Your task to perform on an android device: change the clock display to digital Image 0: 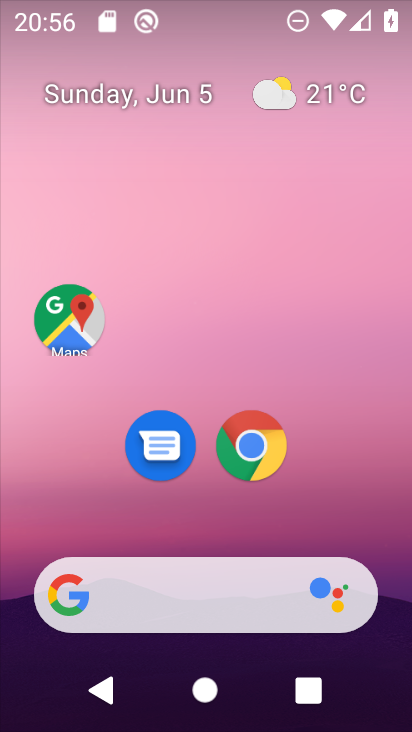
Step 0: drag from (313, 489) to (309, 85)
Your task to perform on an android device: change the clock display to digital Image 1: 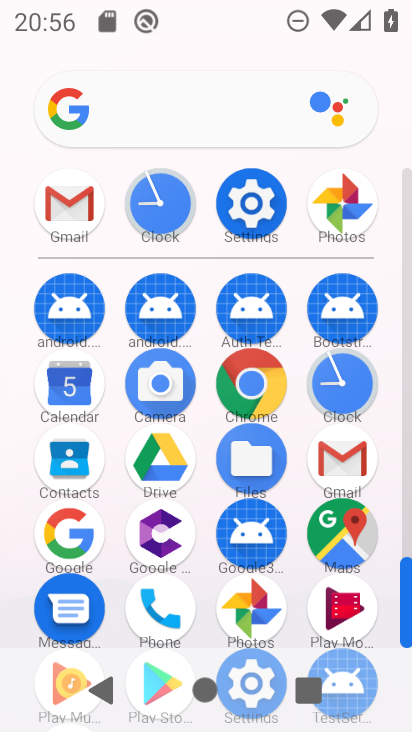
Step 1: click (172, 185)
Your task to perform on an android device: change the clock display to digital Image 2: 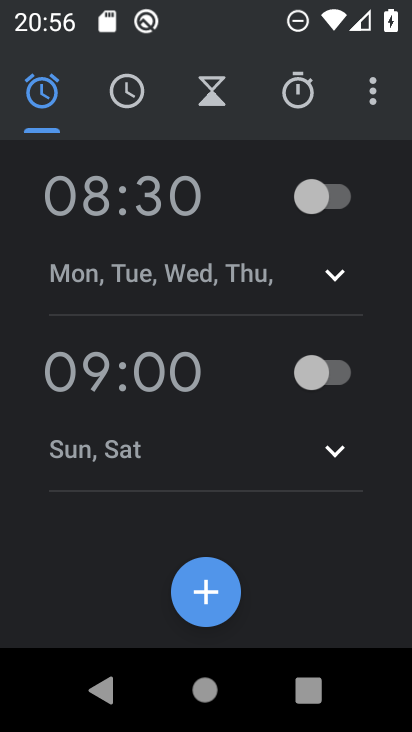
Step 2: click (377, 103)
Your task to perform on an android device: change the clock display to digital Image 3: 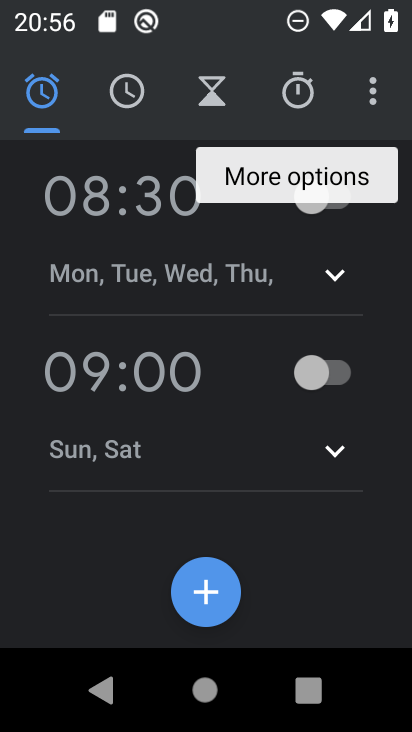
Step 3: click (375, 106)
Your task to perform on an android device: change the clock display to digital Image 4: 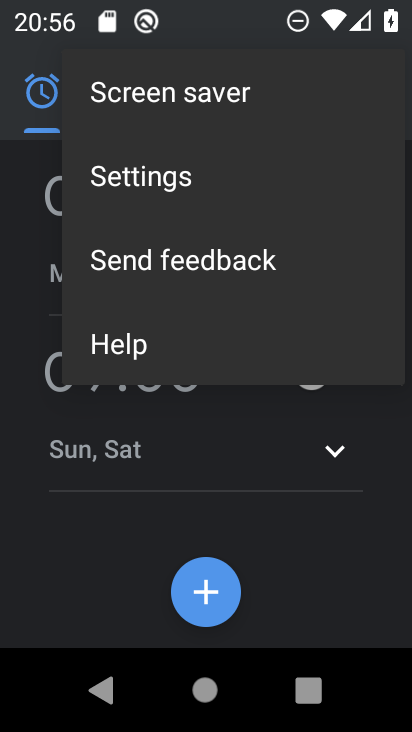
Step 4: click (142, 180)
Your task to perform on an android device: change the clock display to digital Image 5: 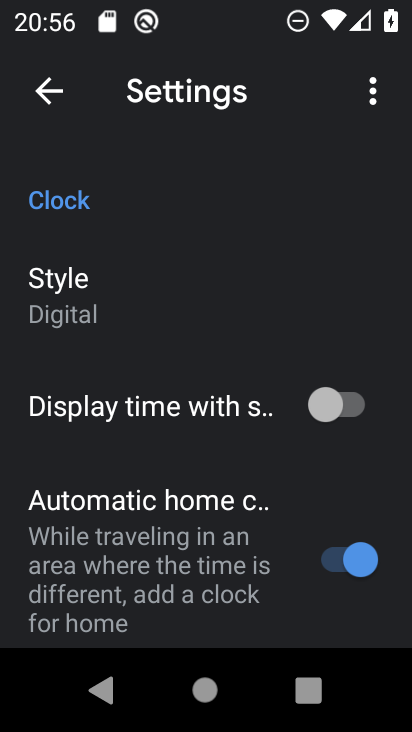
Step 5: click (65, 299)
Your task to perform on an android device: change the clock display to digital Image 6: 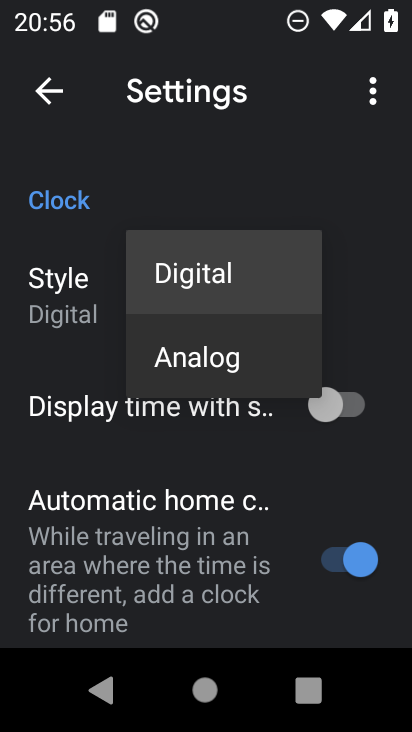
Step 6: task complete